Your task to perform on an android device: Open the calendar app, open the side menu, and click the "Day" option Image 0: 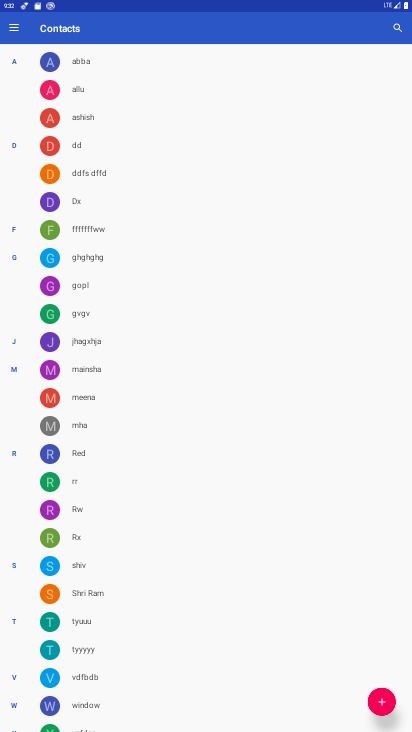
Step 0: press home button
Your task to perform on an android device: Open the calendar app, open the side menu, and click the "Day" option Image 1: 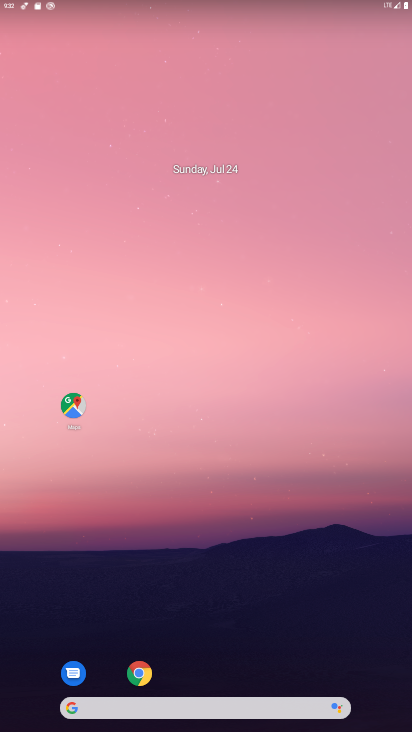
Step 1: drag from (227, 599) to (227, 8)
Your task to perform on an android device: Open the calendar app, open the side menu, and click the "Day" option Image 2: 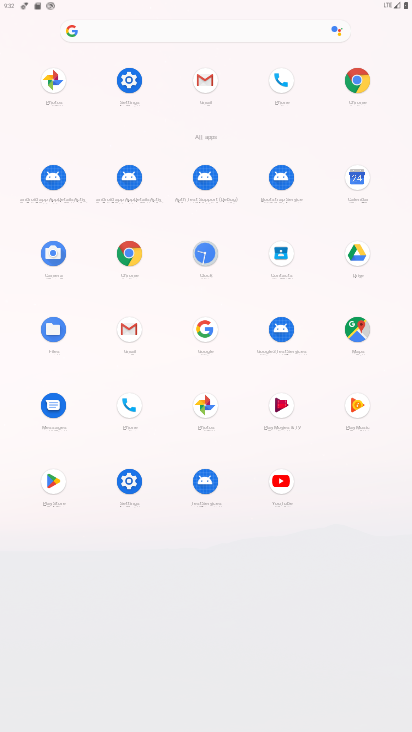
Step 2: click (359, 175)
Your task to perform on an android device: Open the calendar app, open the side menu, and click the "Day" option Image 3: 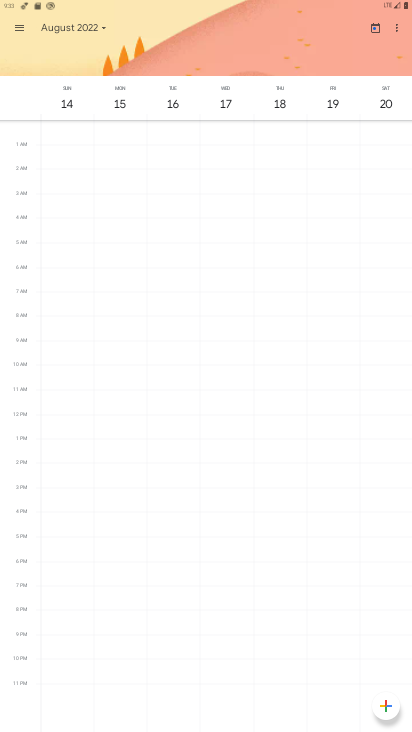
Step 3: click (21, 31)
Your task to perform on an android device: Open the calendar app, open the side menu, and click the "Day" option Image 4: 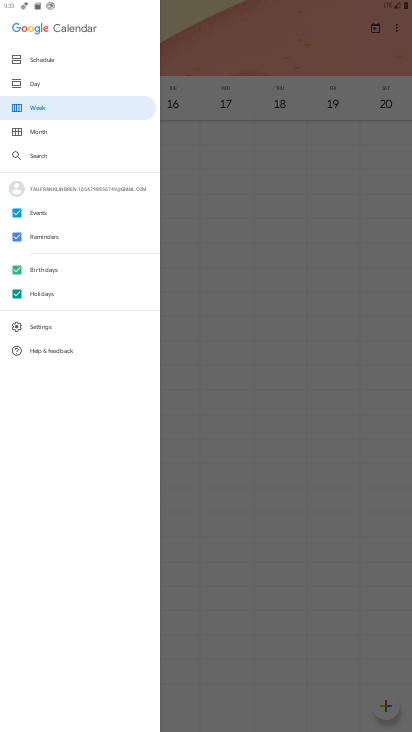
Step 4: click (44, 84)
Your task to perform on an android device: Open the calendar app, open the side menu, and click the "Day" option Image 5: 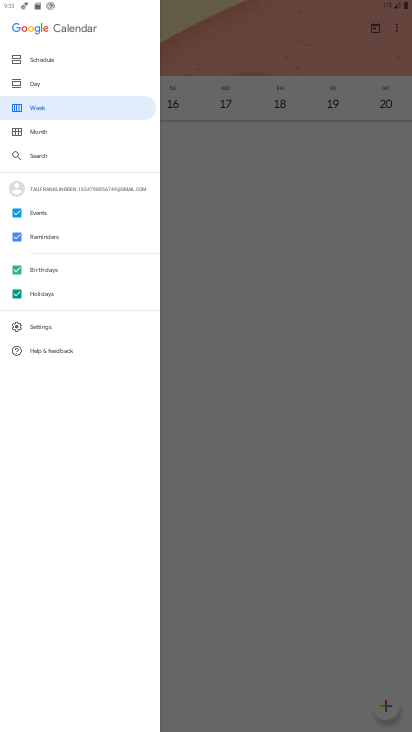
Step 5: click (62, 110)
Your task to perform on an android device: Open the calendar app, open the side menu, and click the "Day" option Image 6: 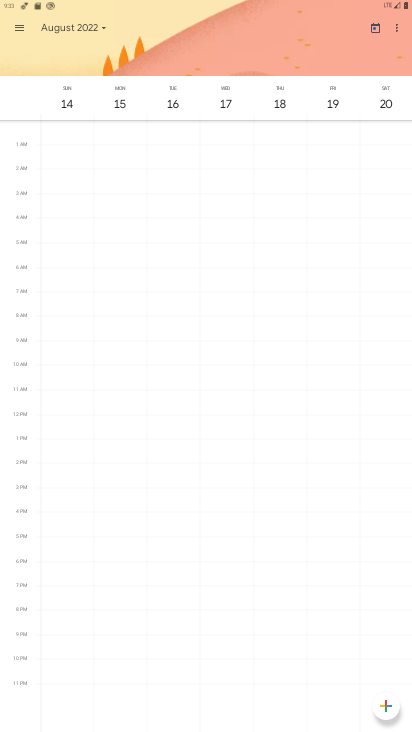
Step 6: click (18, 23)
Your task to perform on an android device: Open the calendar app, open the side menu, and click the "Day" option Image 7: 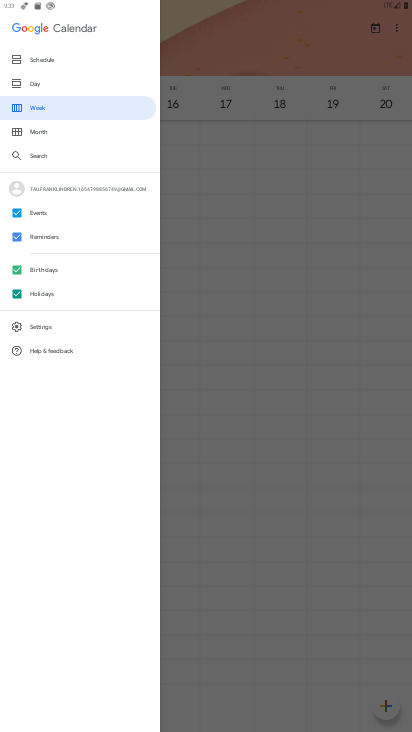
Step 7: click (37, 81)
Your task to perform on an android device: Open the calendar app, open the side menu, and click the "Day" option Image 8: 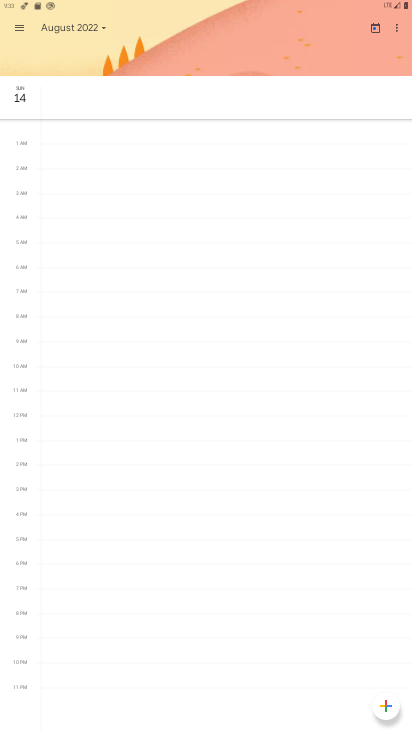
Step 8: task complete